Your task to perform on an android device: Go to Google maps Image 0: 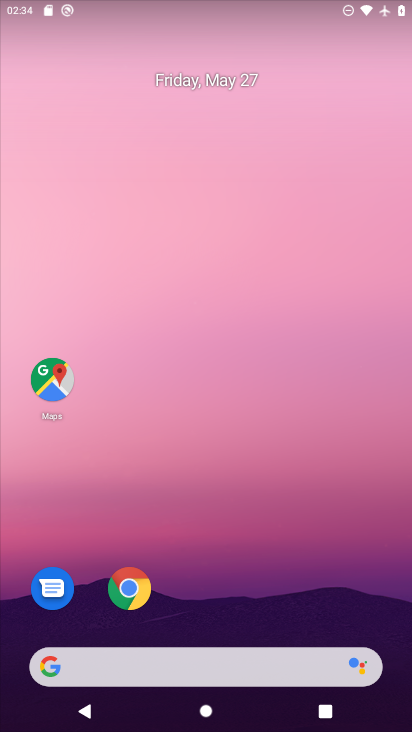
Step 0: click (52, 383)
Your task to perform on an android device: Go to Google maps Image 1: 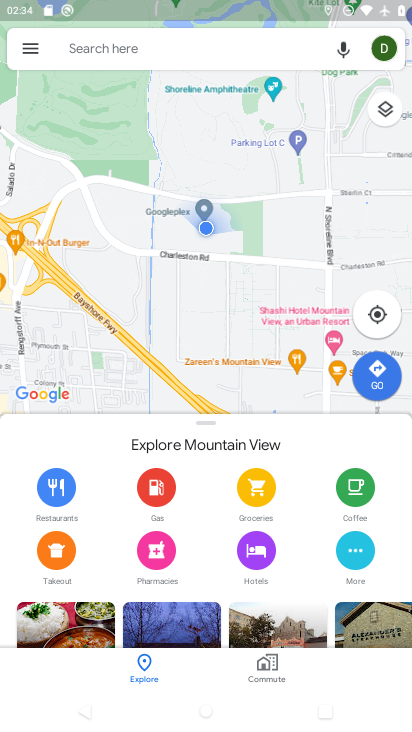
Step 1: task complete